Your task to perform on an android device: change notification settings in the gmail app Image 0: 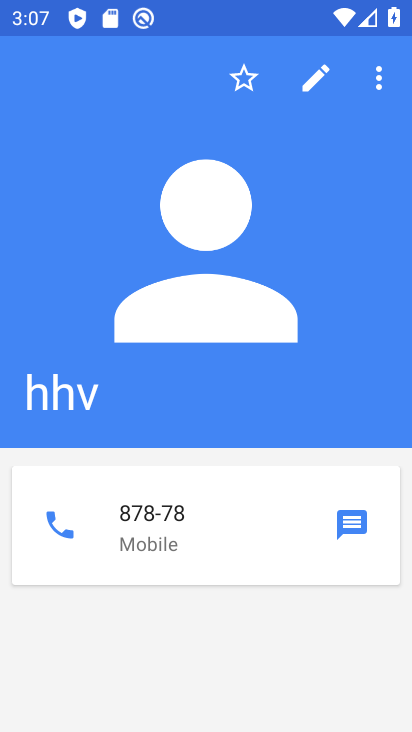
Step 0: press back button
Your task to perform on an android device: change notification settings in the gmail app Image 1: 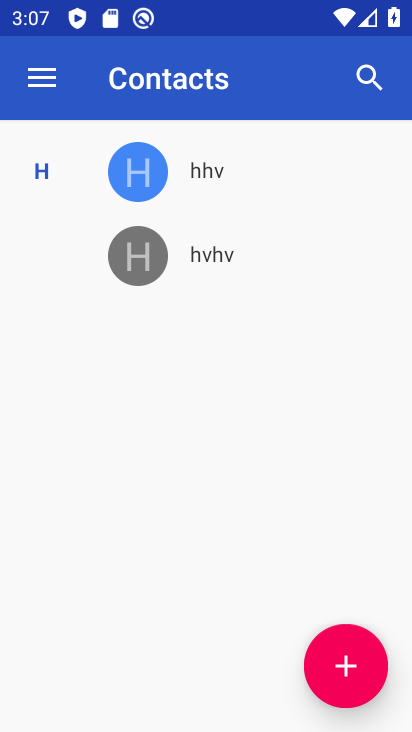
Step 1: press back button
Your task to perform on an android device: change notification settings in the gmail app Image 2: 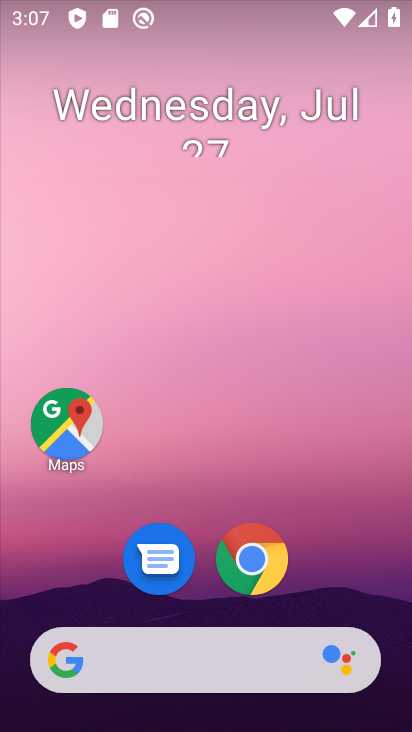
Step 2: drag from (89, 580) to (208, 89)
Your task to perform on an android device: change notification settings in the gmail app Image 3: 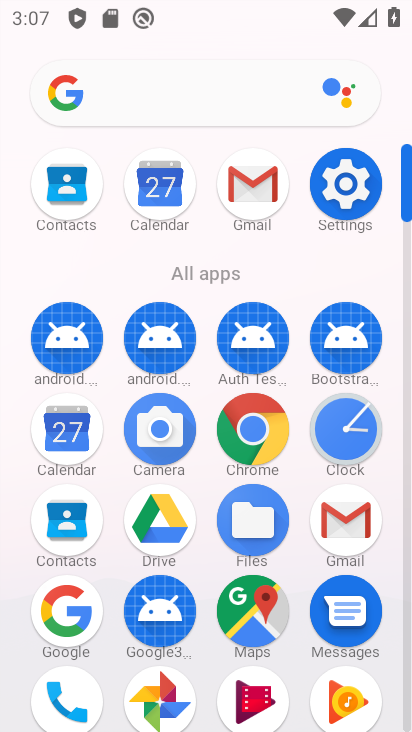
Step 3: click (255, 195)
Your task to perform on an android device: change notification settings in the gmail app Image 4: 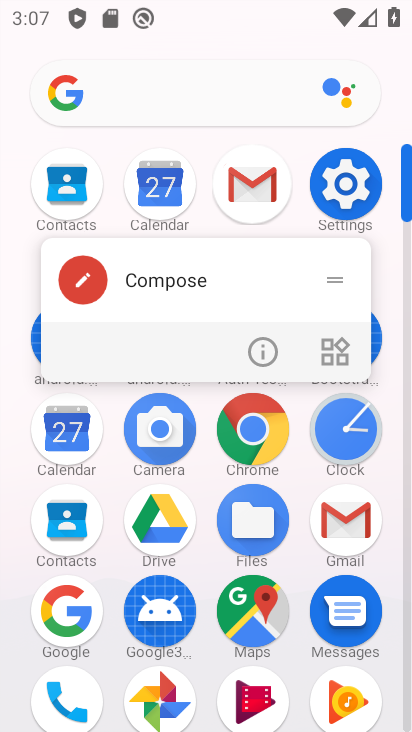
Step 4: click (258, 358)
Your task to perform on an android device: change notification settings in the gmail app Image 5: 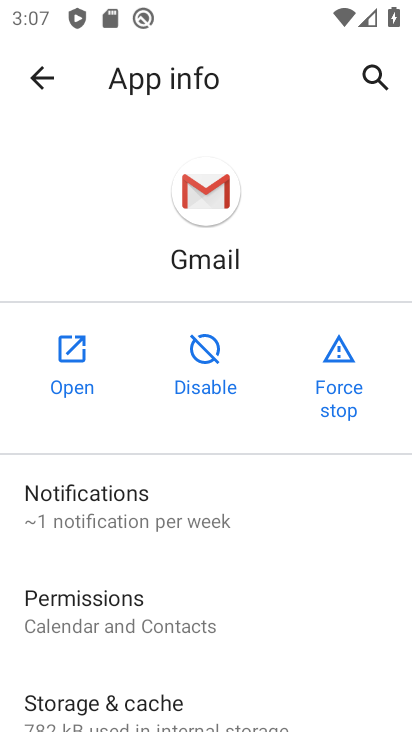
Step 5: click (111, 524)
Your task to perform on an android device: change notification settings in the gmail app Image 6: 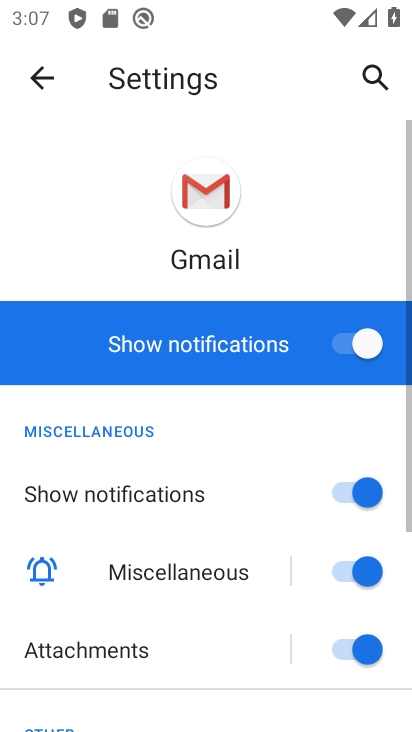
Step 6: drag from (247, 644) to (282, 179)
Your task to perform on an android device: change notification settings in the gmail app Image 7: 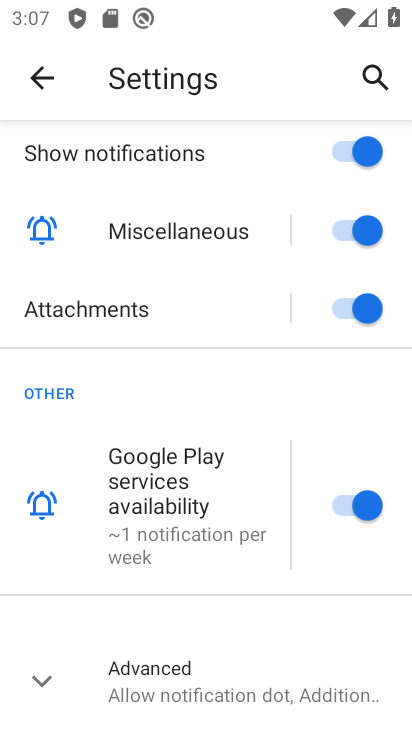
Step 7: click (364, 155)
Your task to perform on an android device: change notification settings in the gmail app Image 8: 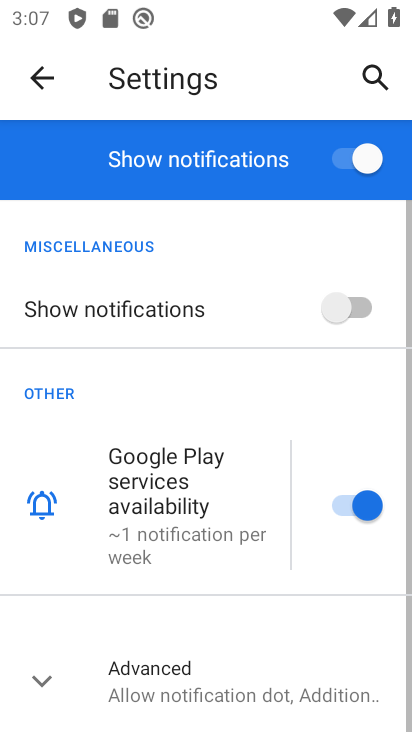
Step 8: task complete